Your task to perform on an android device: turn off translation in the chrome app Image 0: 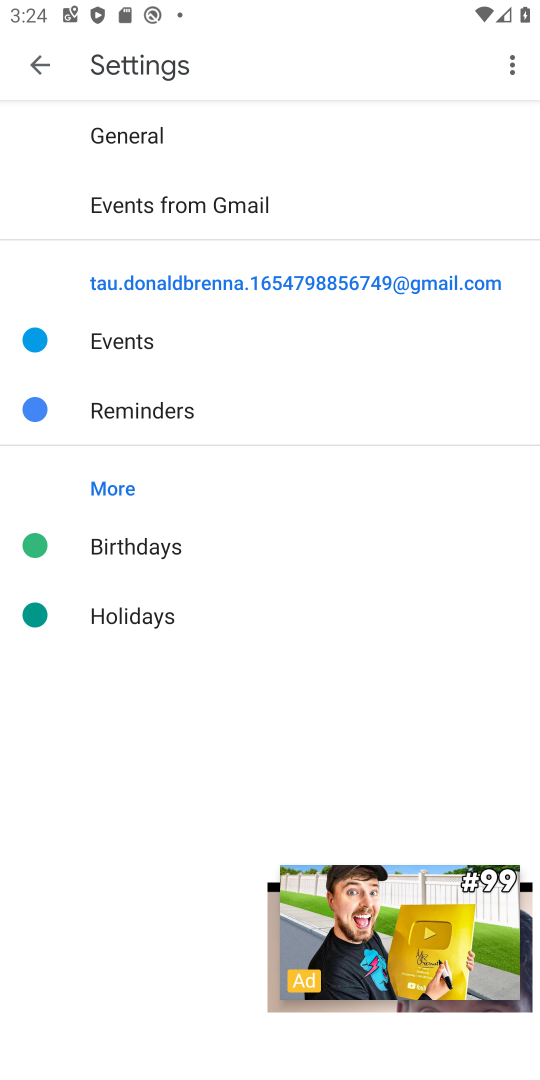
Step 0: press home button
Your task to perform on an android device: turn off translation in the chrome app Image 1: 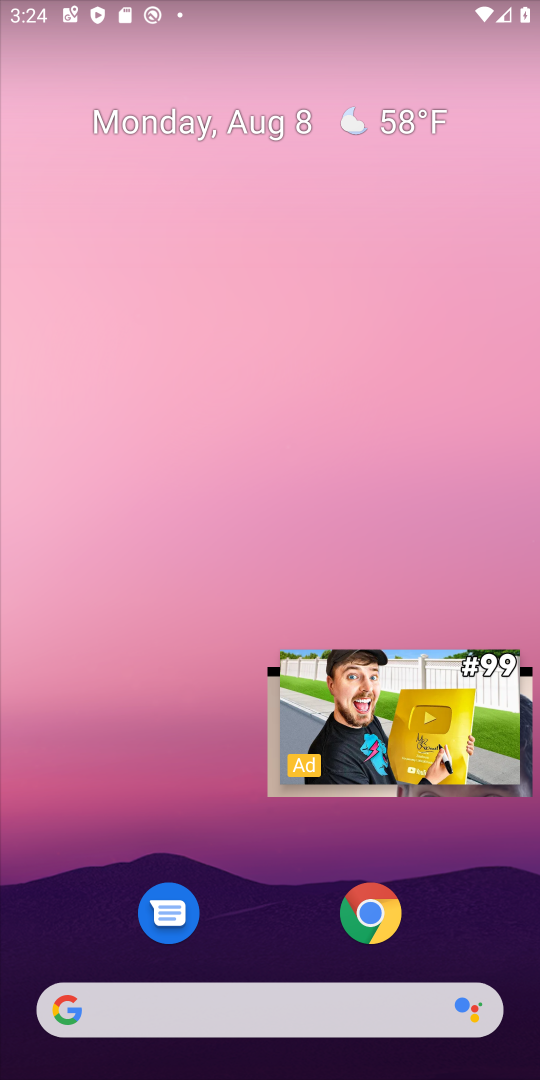
Step 1: drag from (230, 843) to (283, 293)
Your task to perform on an android device: turn off translation in the chrome app Image 2: 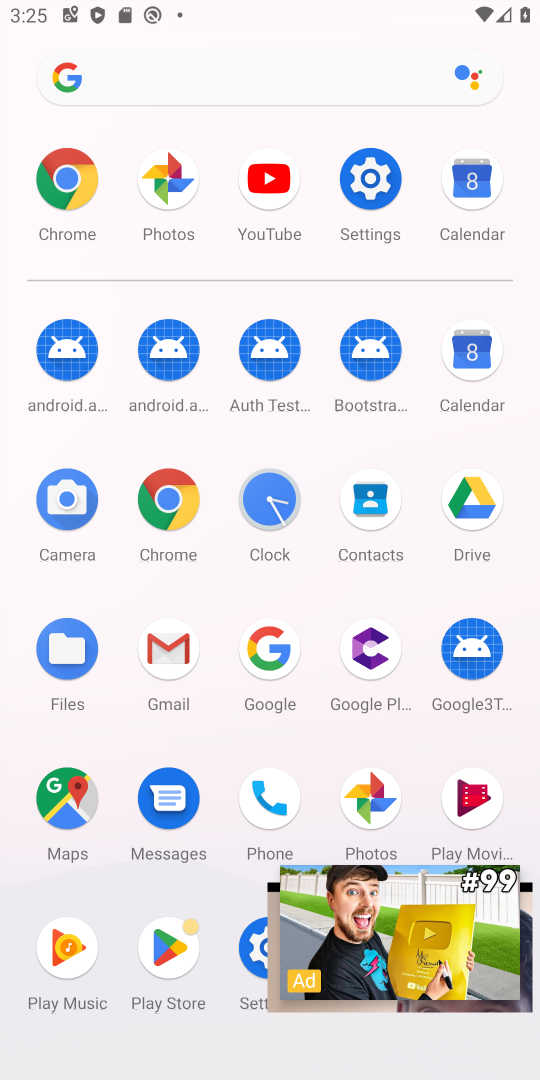
Step 2: click (172, 507)
Your task to perform on an android device: turn off translation in the chrome app Image 3: 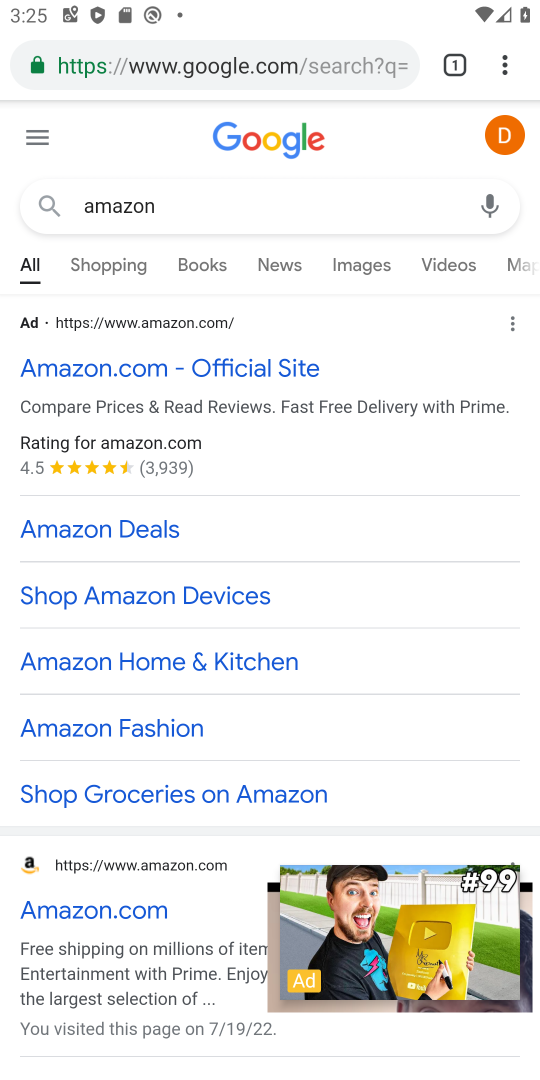
Step 3: click (506, 63)
Your task to perform on an android device: turn off translation in the chrome app Image 4: 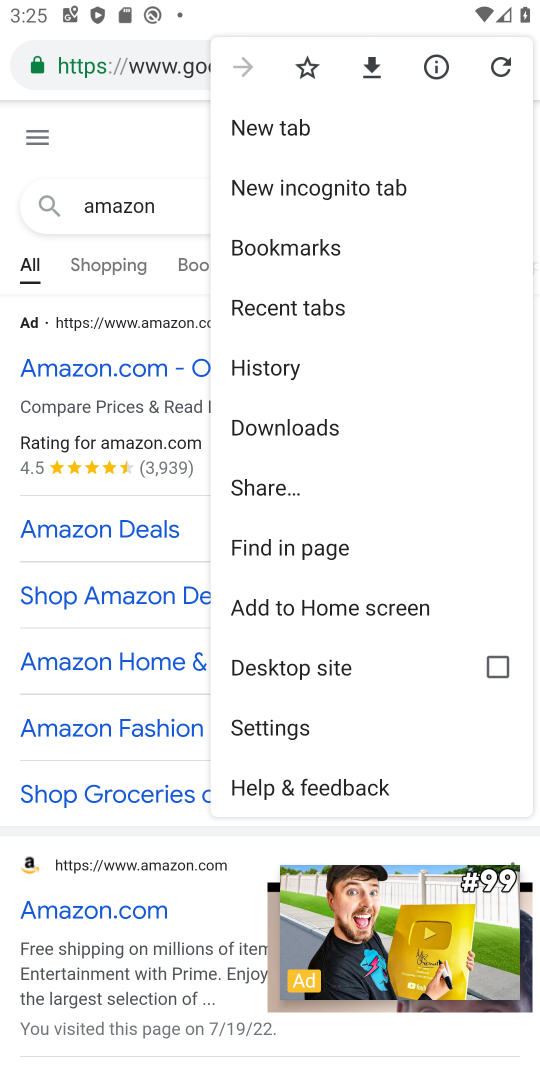
Step 4: click (295, 727)
Your task to perform on an android device: turn off translation in the chrome app Image 5: 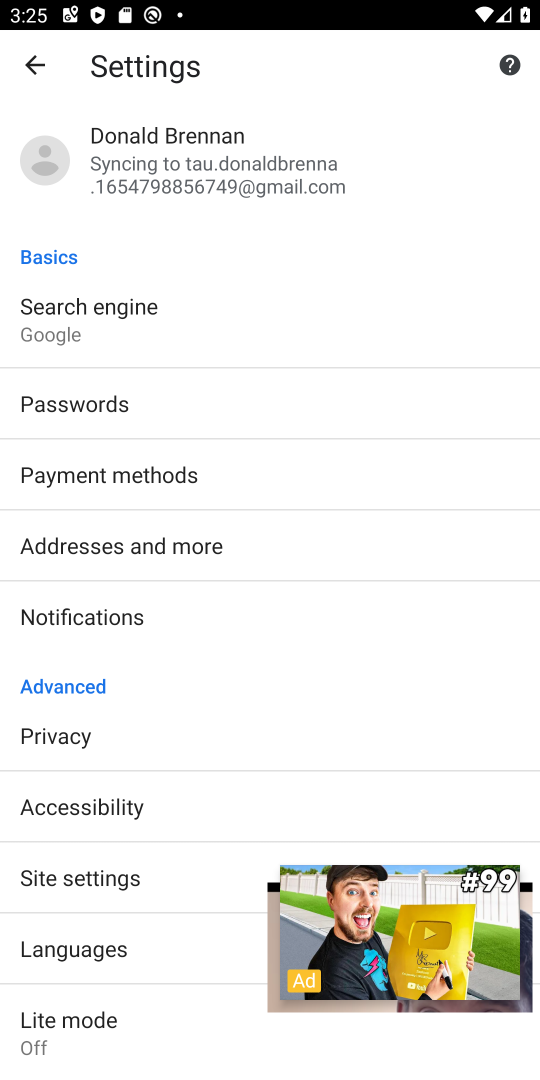
Step 5: click (168, 950)
Your task to perform on an android device: turn off translation in the chrome app Image 6: 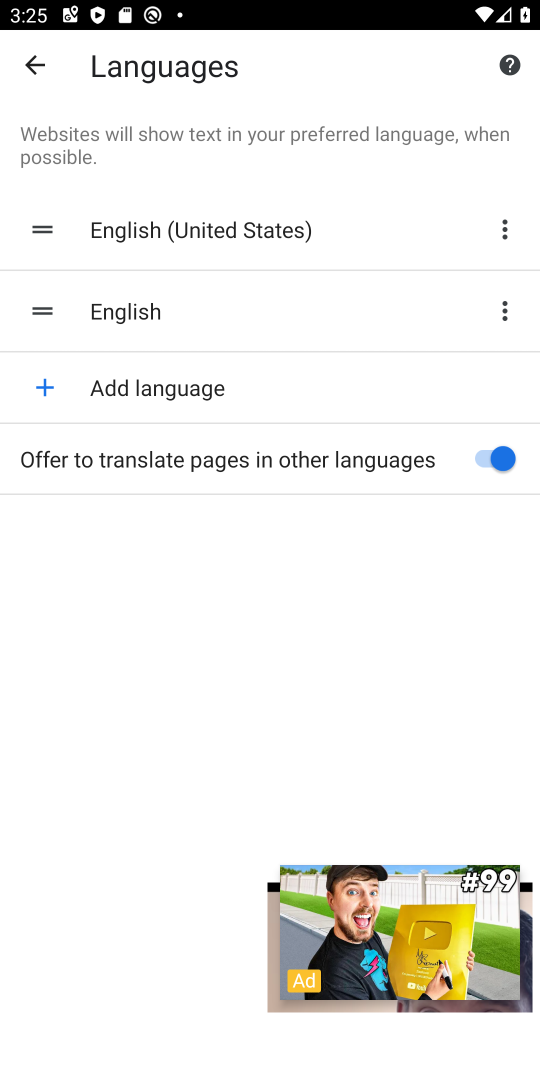
Step 6: click (503, 453)
Your task to perform on an android device: turn off translation in the chrome app Image 7: 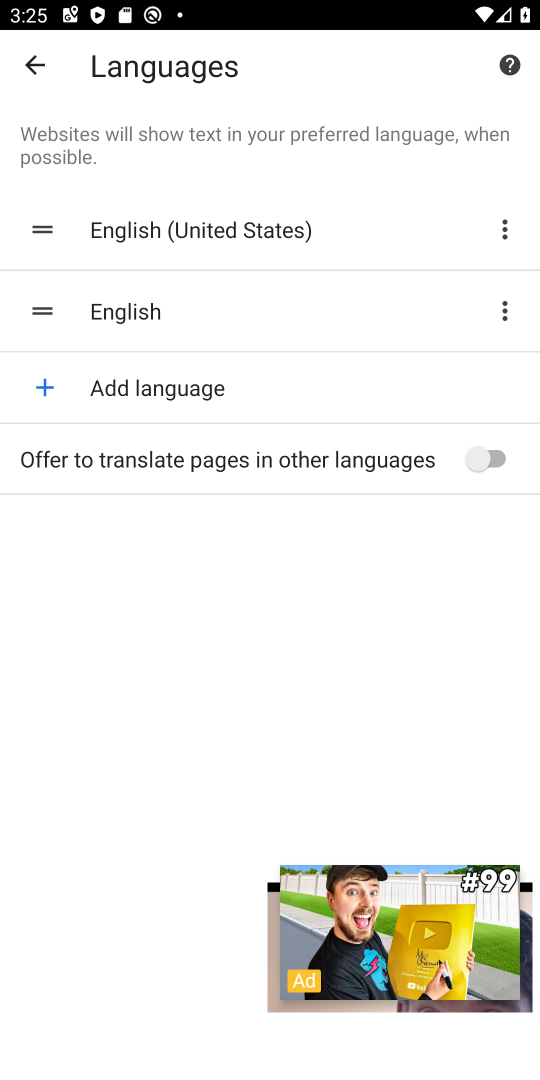
Step 7: task complete